Your task to perform on an android device: Open maps Image 0: 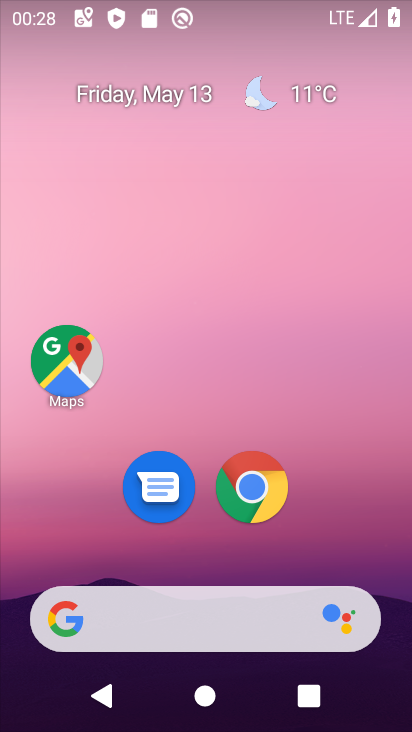
Step 0: click (74, 378)
Your task to perform on an android device: Open maps Image 1: 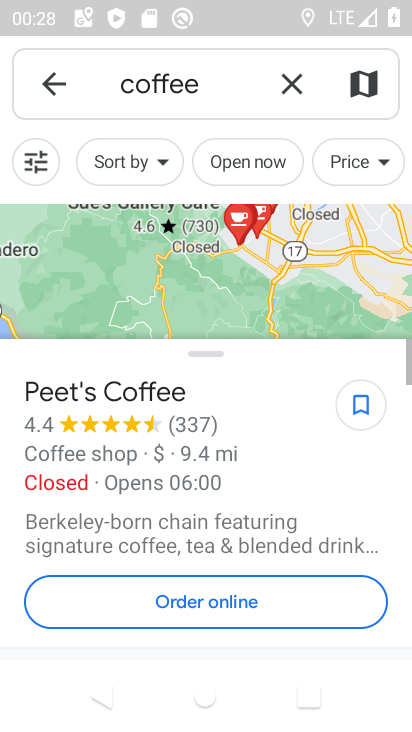
Step 1: task complete